Your task to perform on an android device: Clear the cart on ebay.com. Search for bose soundlink mini on ebay.com, select the first entry, add it to the cart, then select checkout. Image 0: 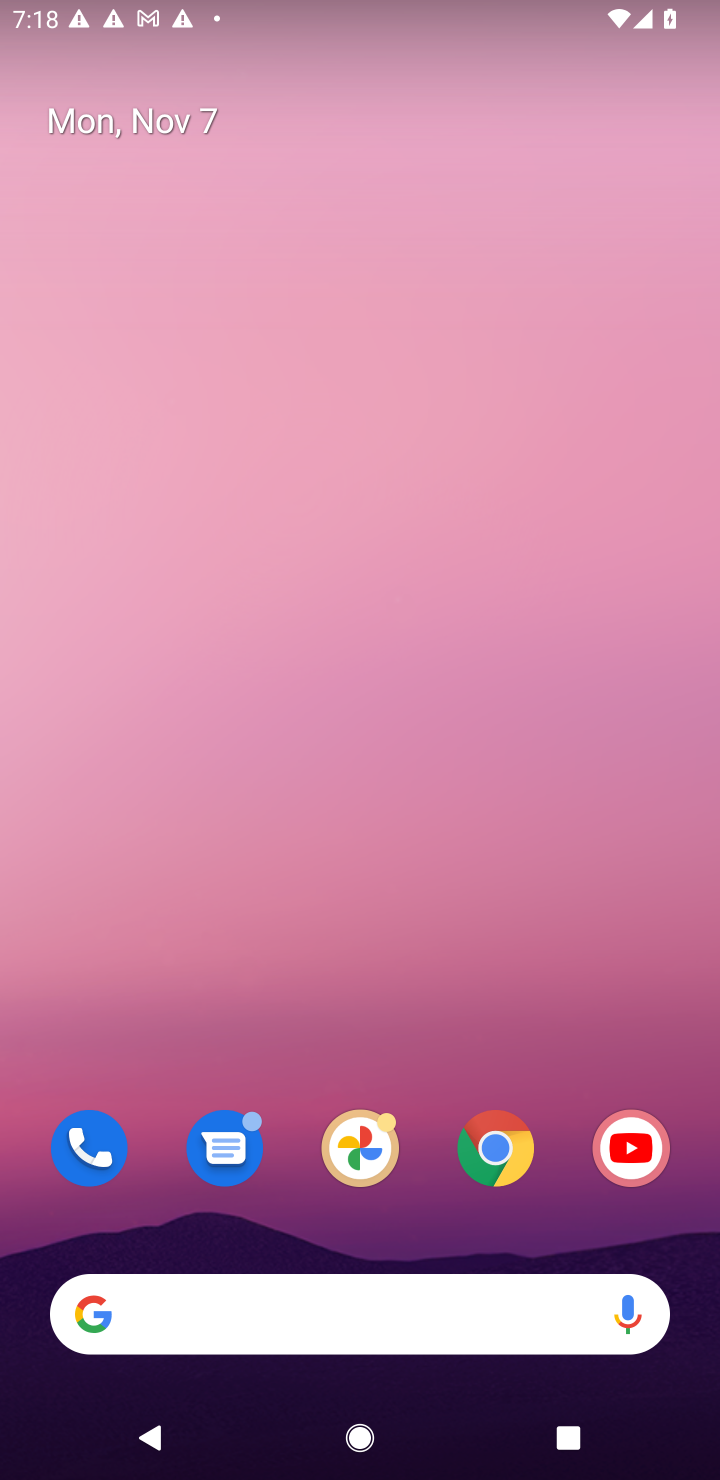
Step 0: click (497, 1142)
Your task to perform on an android device: Clear the cart on ebay.com. Search for bose soundlink mini on ebay.com, select the first entry, add it to the cart, then select checkout. Image 1: 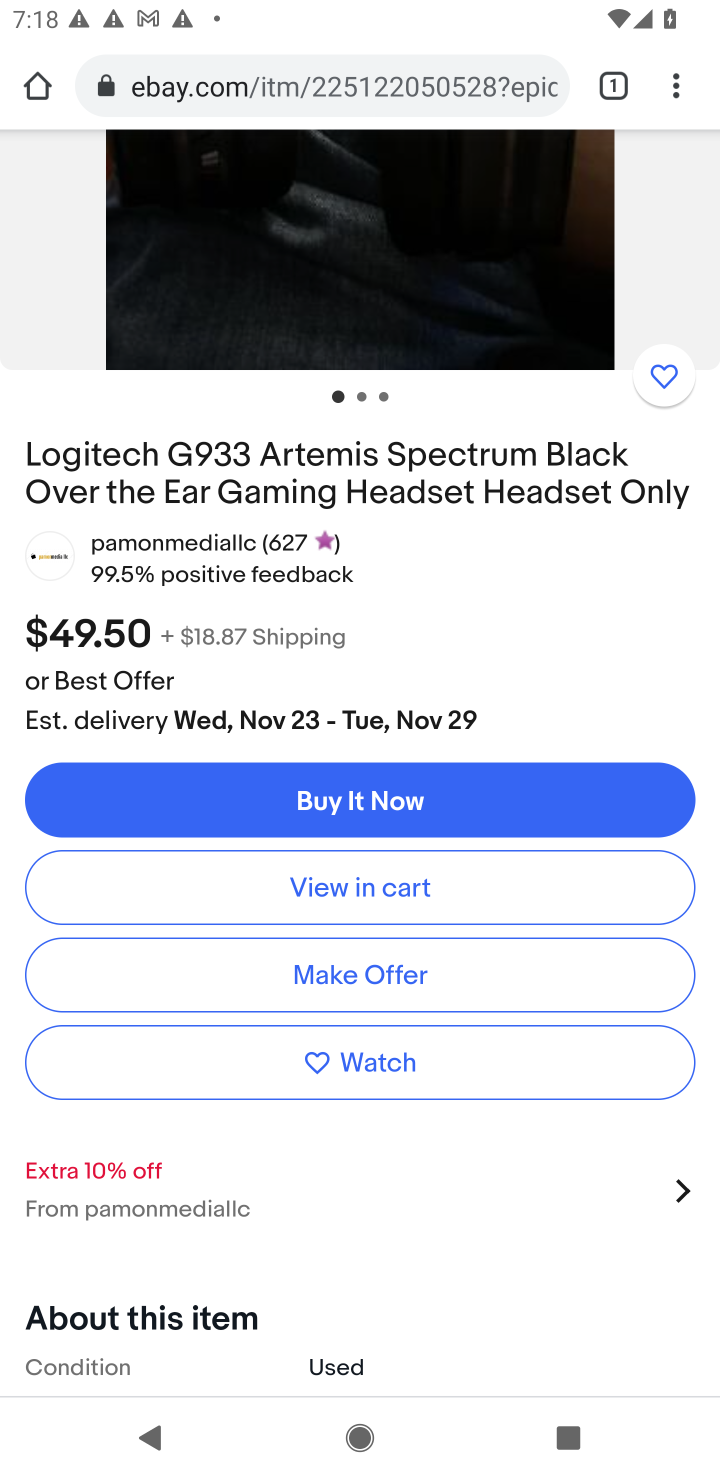
Step 1: click (384, 75)
Your task to perform on an android device: Clear the cart on ebay.com. Search for bose soundlink mini on ebay.com, select the first entry, add it to the cart, then select checkout. Image 2: 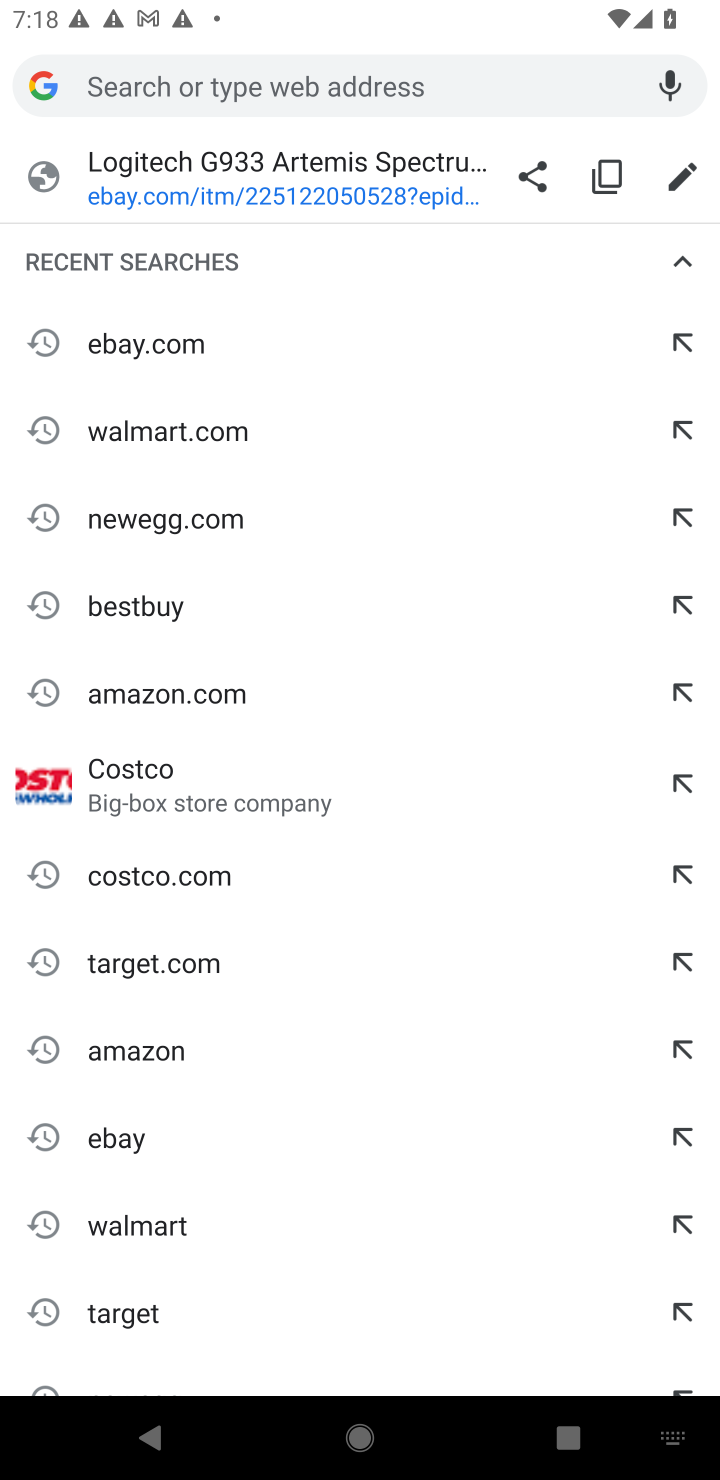
Step 2: click (171, 349)
Your task to perform on an android device: Clear the cart on ebay.com. Search for bose soundlink mini on ebay.com, select the first entry, add it to the cart, then select checkout. Image 3: 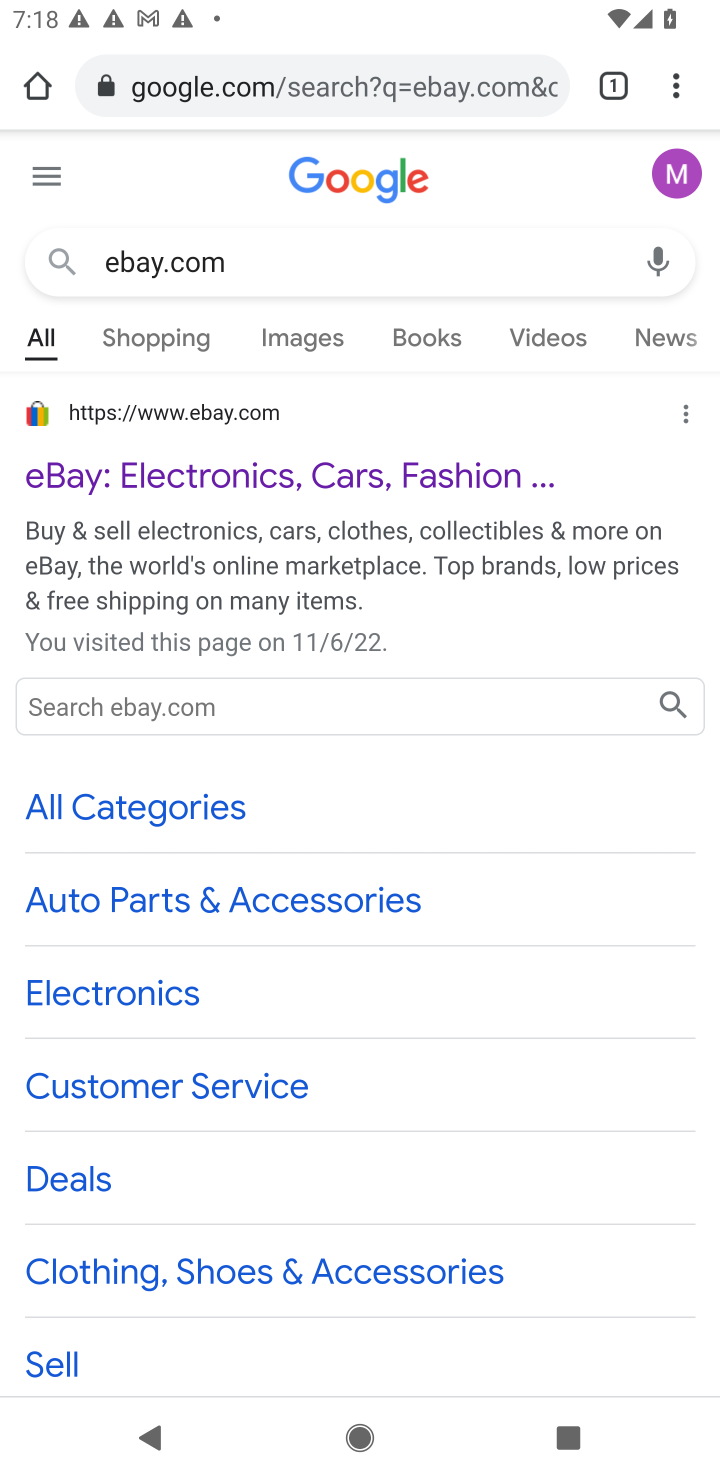
Step 3: click (174, 404)
Your task to perform on an android device: Clear the cart on ebay.com. Search for bose soundlink mini on ebay.com, select the first entry, add it to the cart, then select checkout. Image 4: 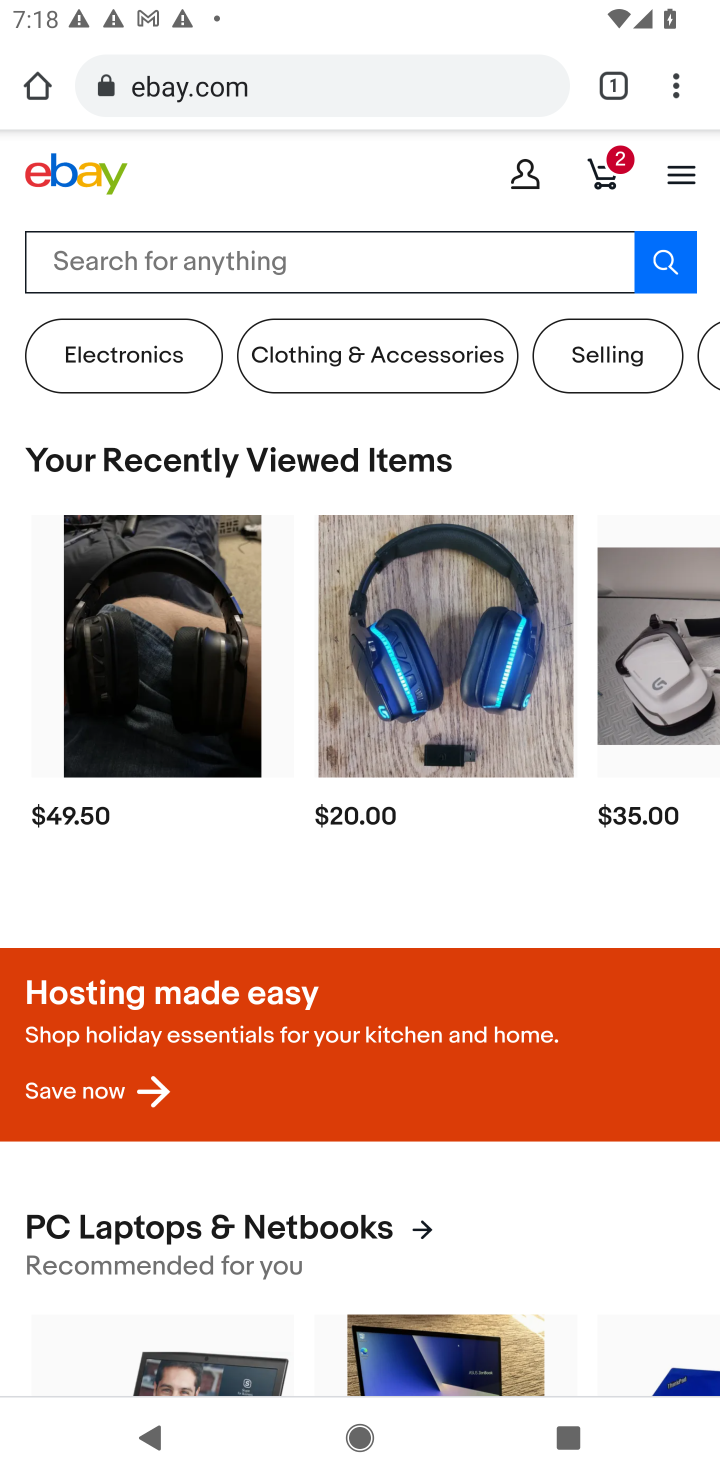
Step 4: click (618, 179)
Your task to perform on an android device: Clear the cart on ebay.com. Search for bose soundlink mini on ebay.com, select the first entry, add it to the cart, then select checkout. Image 5: 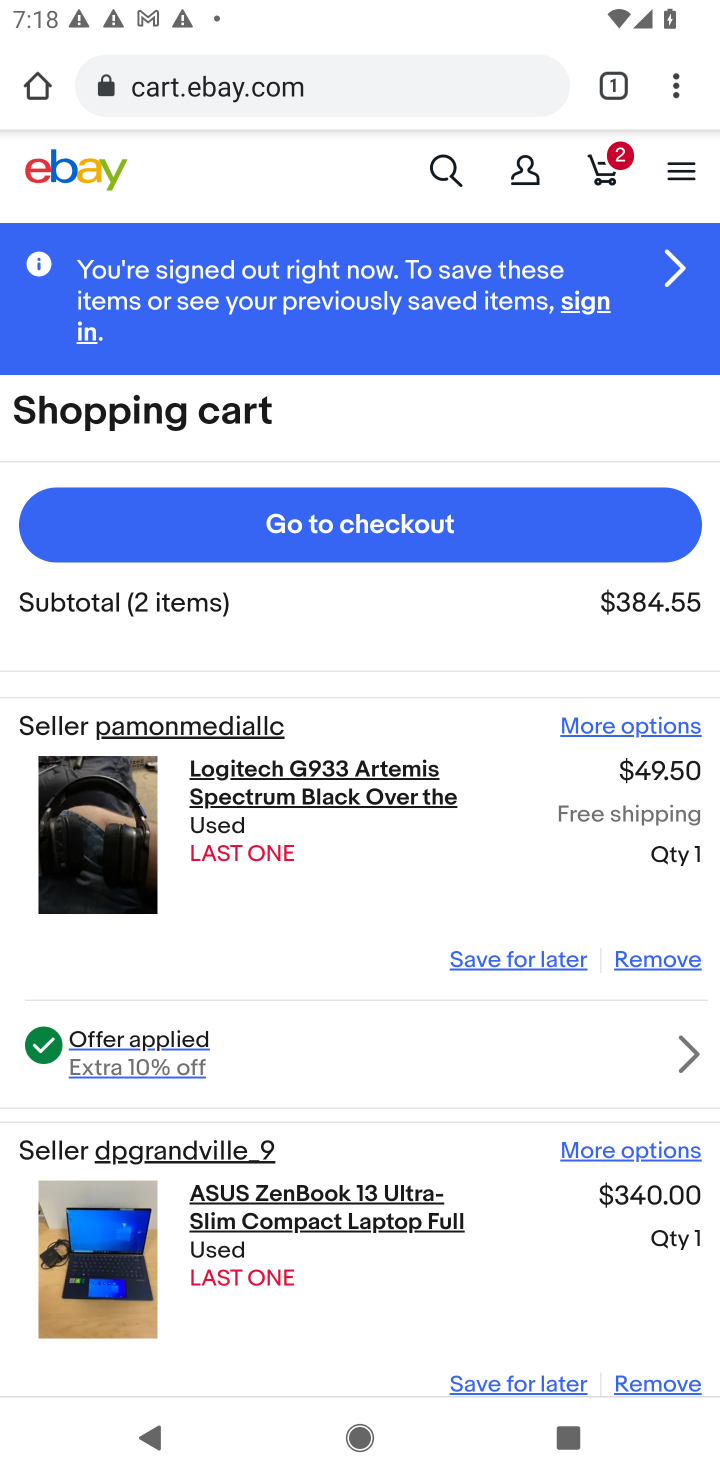
Step 5: click (659, 959)
Your task to perform on an android device: Clear the cart on ebay.com. Search for bose soundlink mini on ebay.com, select the first entry, add it to the cart, then select checkout. Image 6: 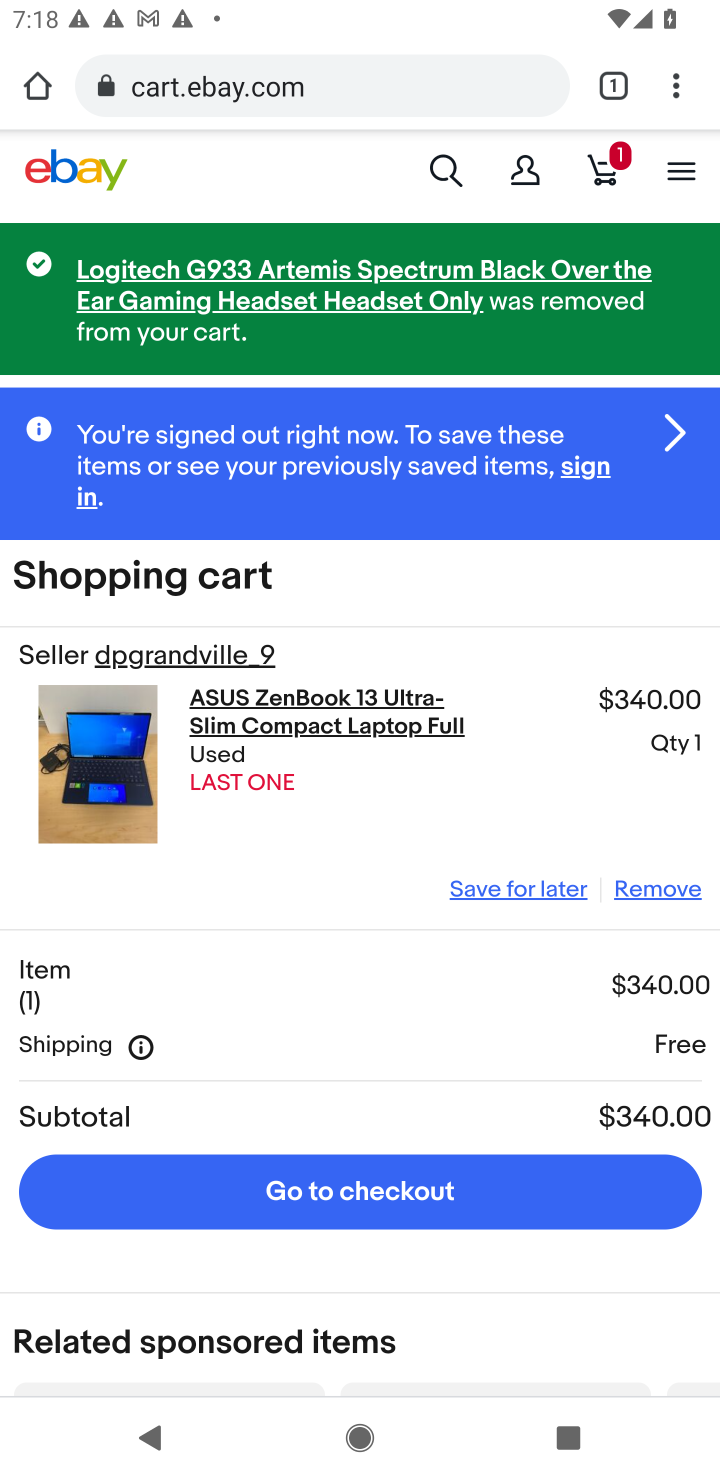
Step 6: click (668, 879)
Your task to perform on an android device: Clear the cart on ebay.com. Search for bose soundlink mini on ebay.com, select the first entry, add it to the cart, then select checkout. Image 7: 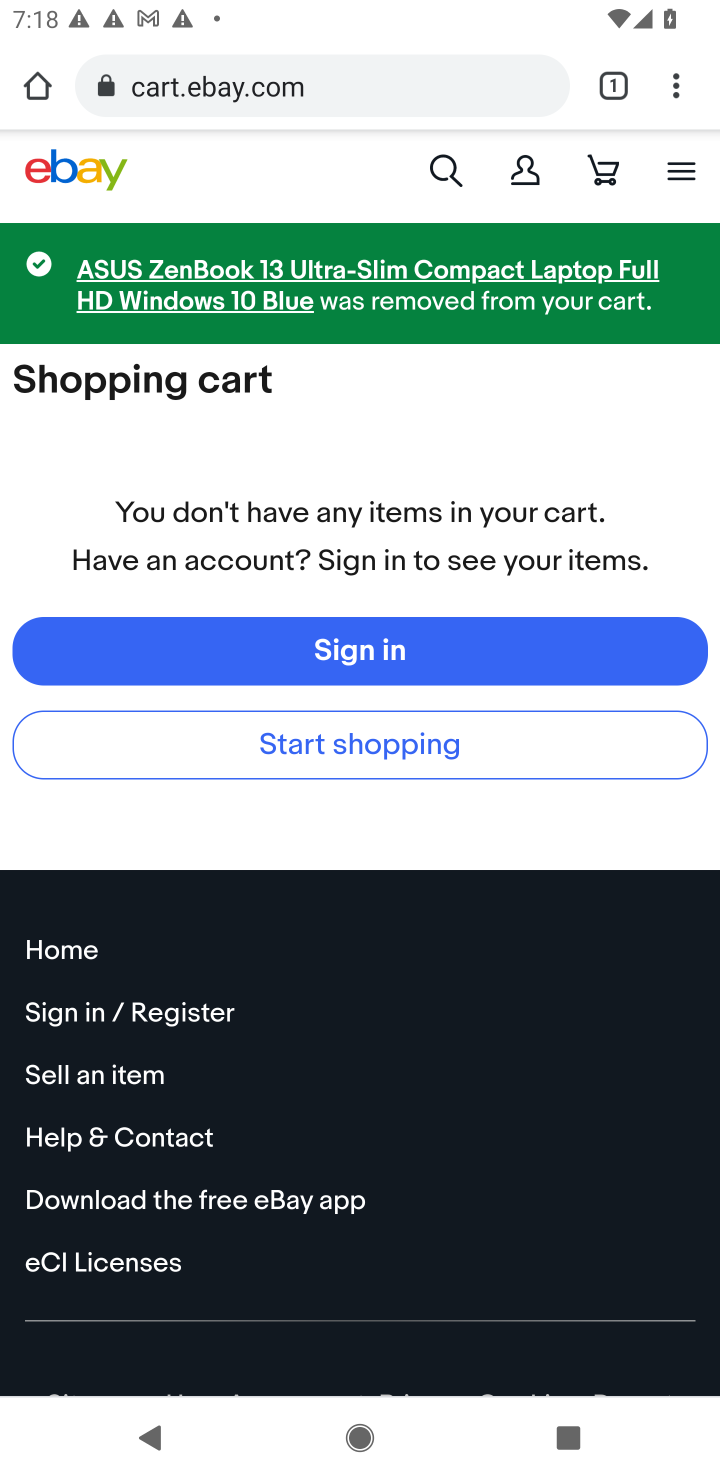
Step 7: click (434, 163)
Your task to perform on an android device: Clear the cart on ebay.com. Search for bose soundlink mini on ebay.com, select the first entry, add it to the cart, then select checkout. Image 8: 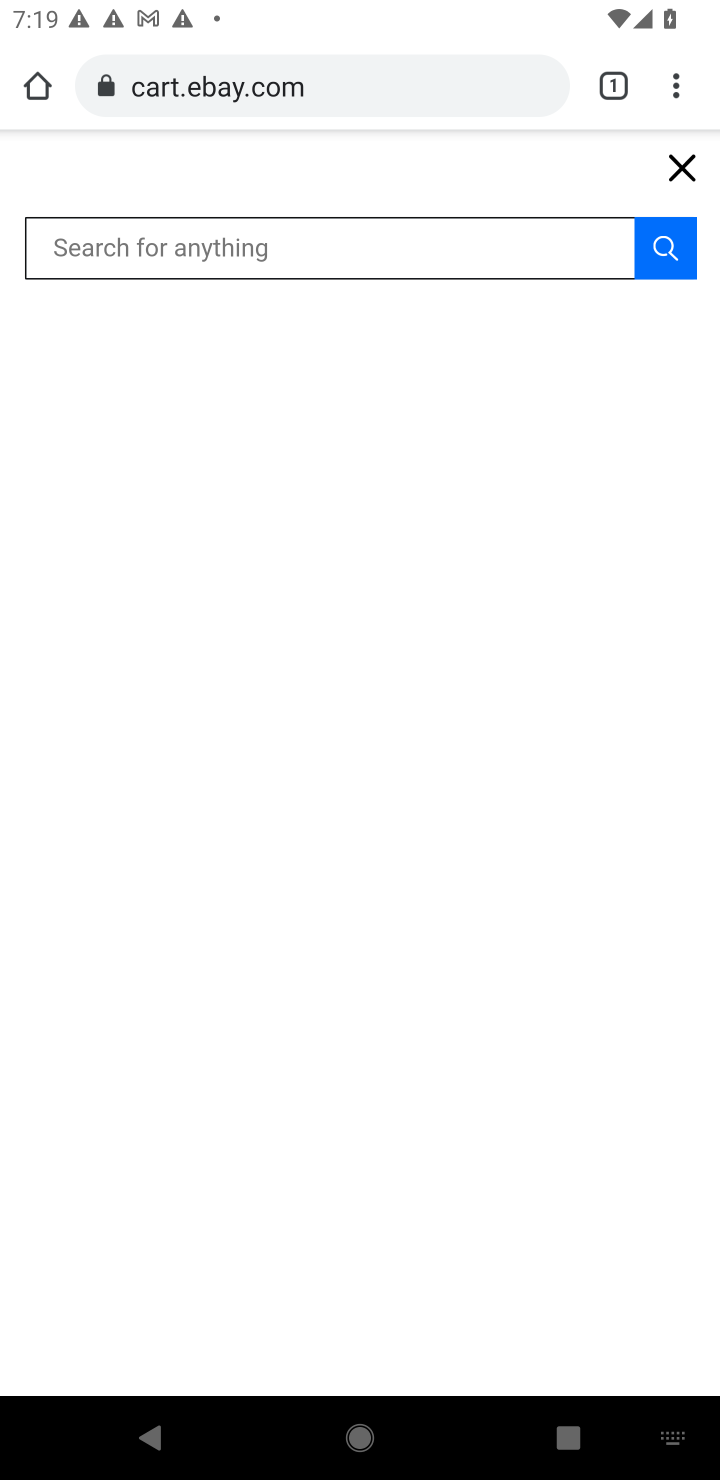
Step 8: click (497, 243)
Your task to perform on an android device: Clear the cart on ebay.com. Search for bose soundlink mini on ebay.com, select the first entry, add it to the cart, then select checkout. Image 9: 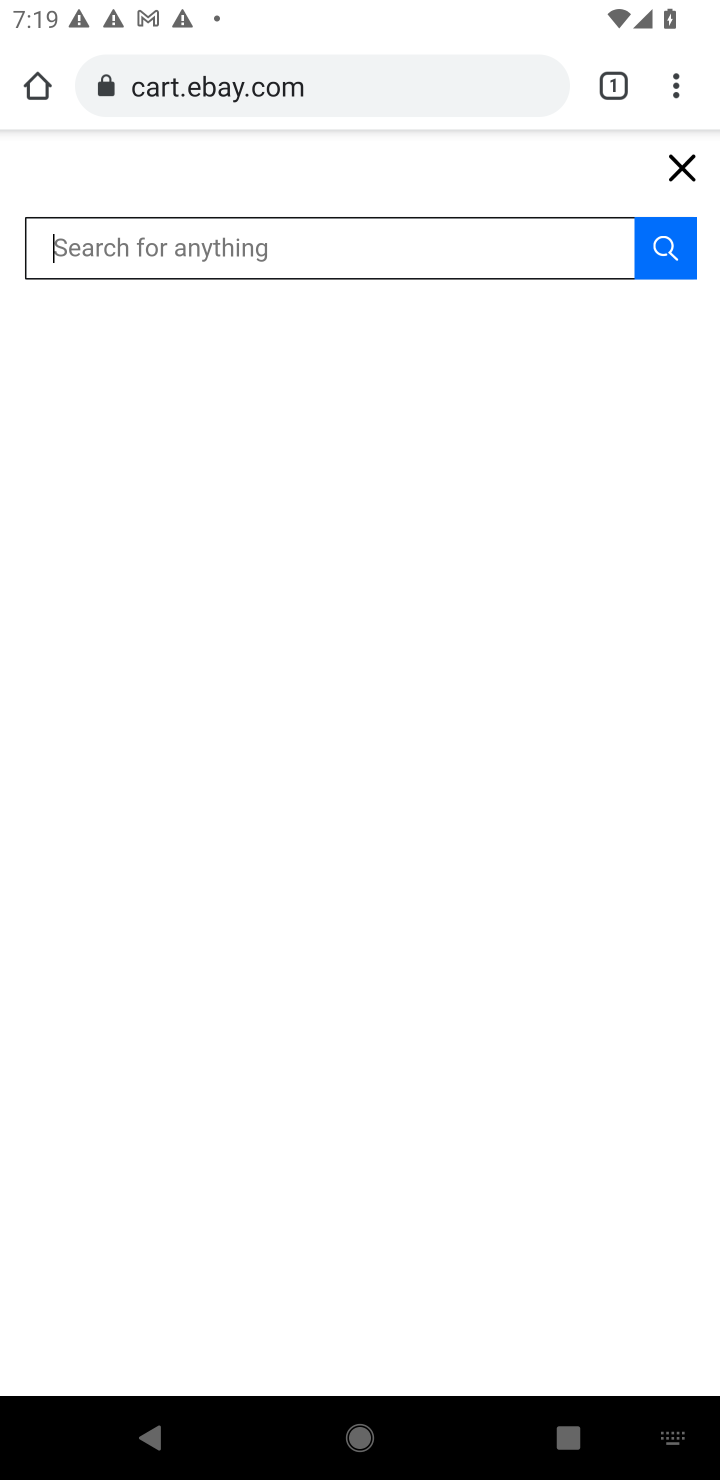
Step 9: type "bose soundlink mini "
Your task to perform on an android device: Clear the cart on ebay.com. Search for bose soundlink mini on ebay.com, select the first entry, add it to the cart, then select checkout. Image 10: 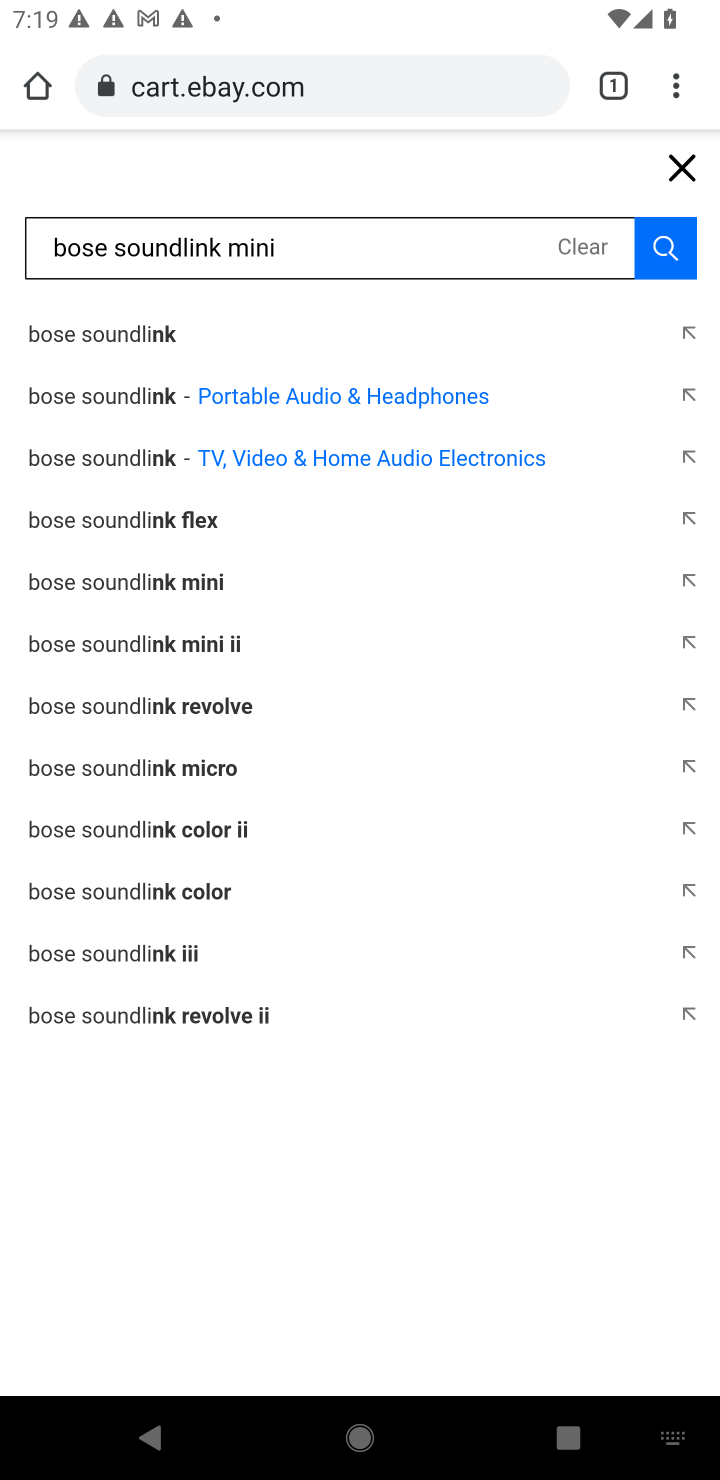
Step 10: click (195, 578)
Your task to perform on an android device: Clear the cart on ebay.com. Search for bose soundlink mini on ebay.com, select the first entry, add it to the cart, then select checkout. Image 11: 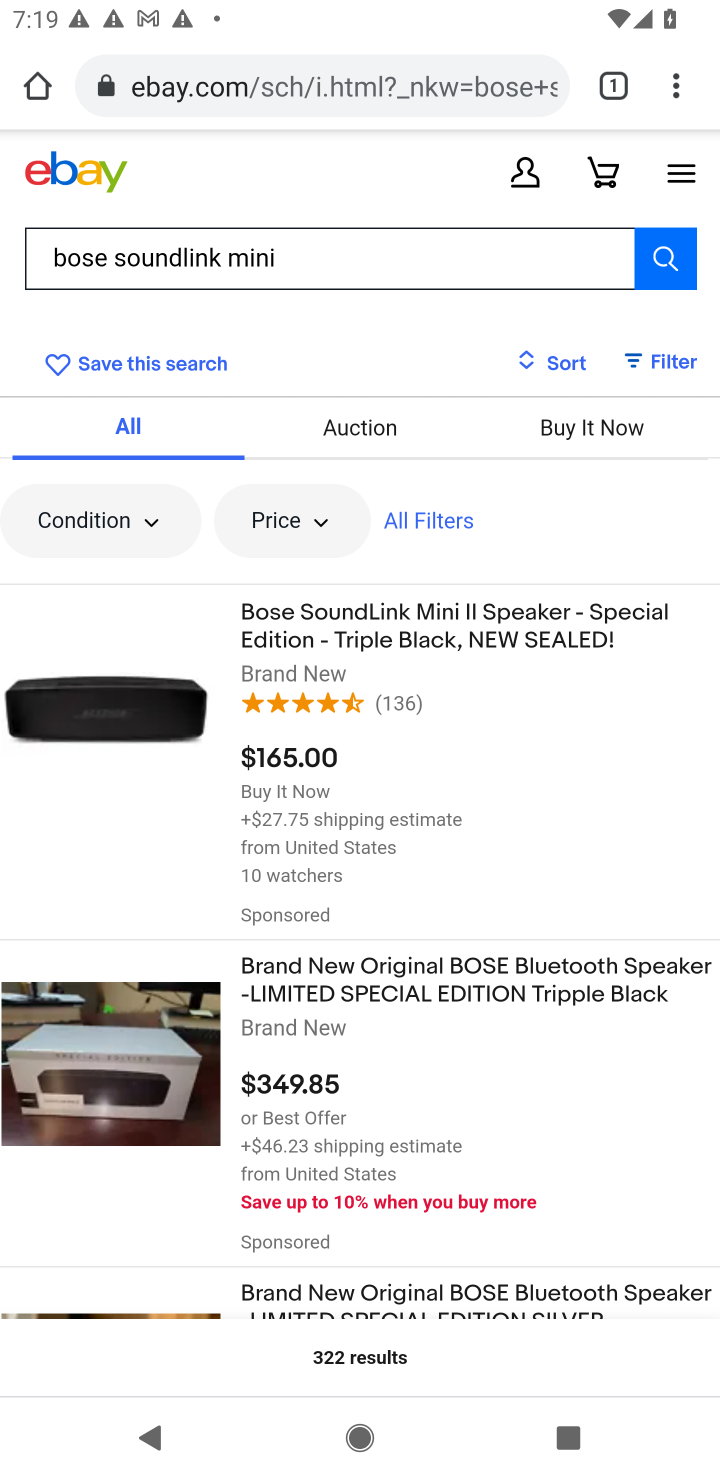
Step 11: click (138, 711)
Your task to perform on an android device: Clear the cart on ebay.com. Search for bose soundlink mini on ebay.com, select the first entry, add it to the cart, then select checkout. Image 12: 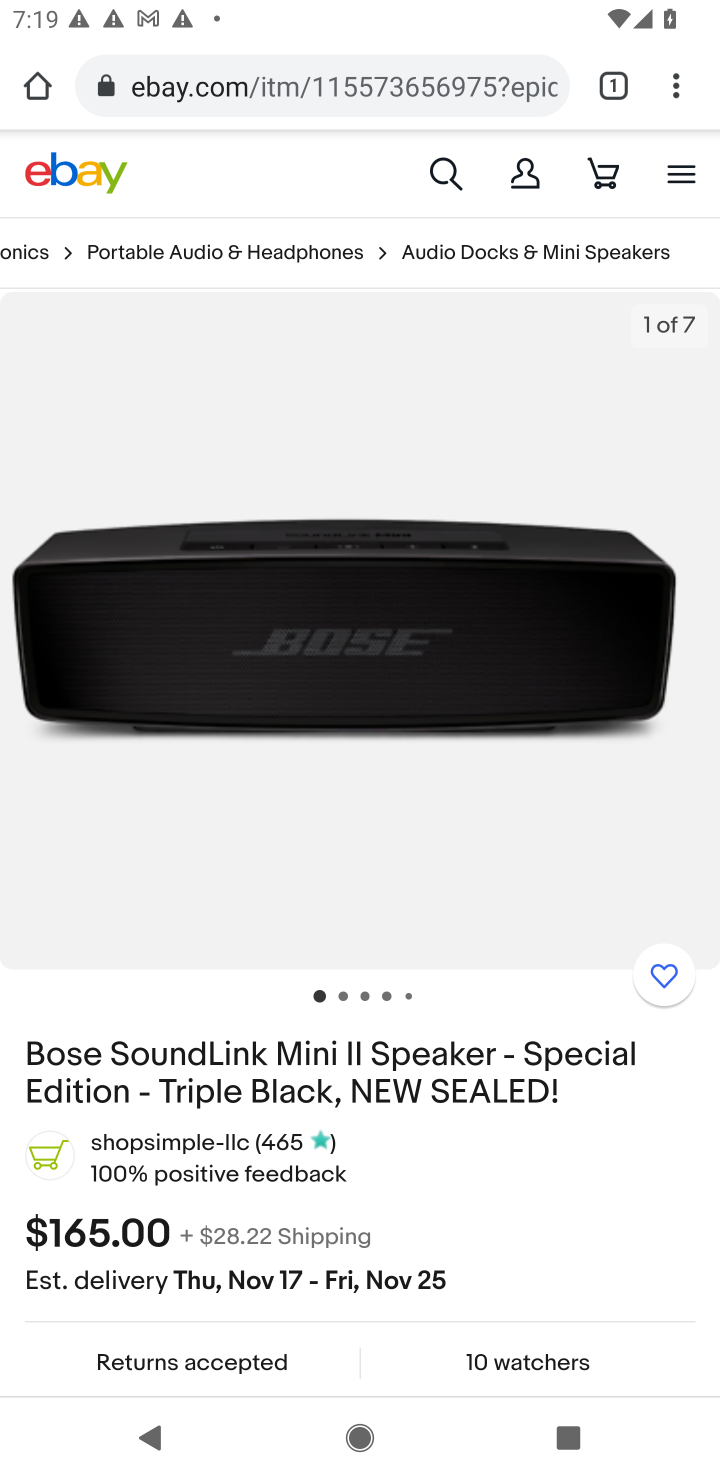
Step 12: drag from (526, 1152) to (565, 565)
Your task to perform on an android device: Clear the cart on ebay.com. Search for bose soundlink mini on ebay.com, select the first entry, add it to the cart, then select checkout. Image 13: 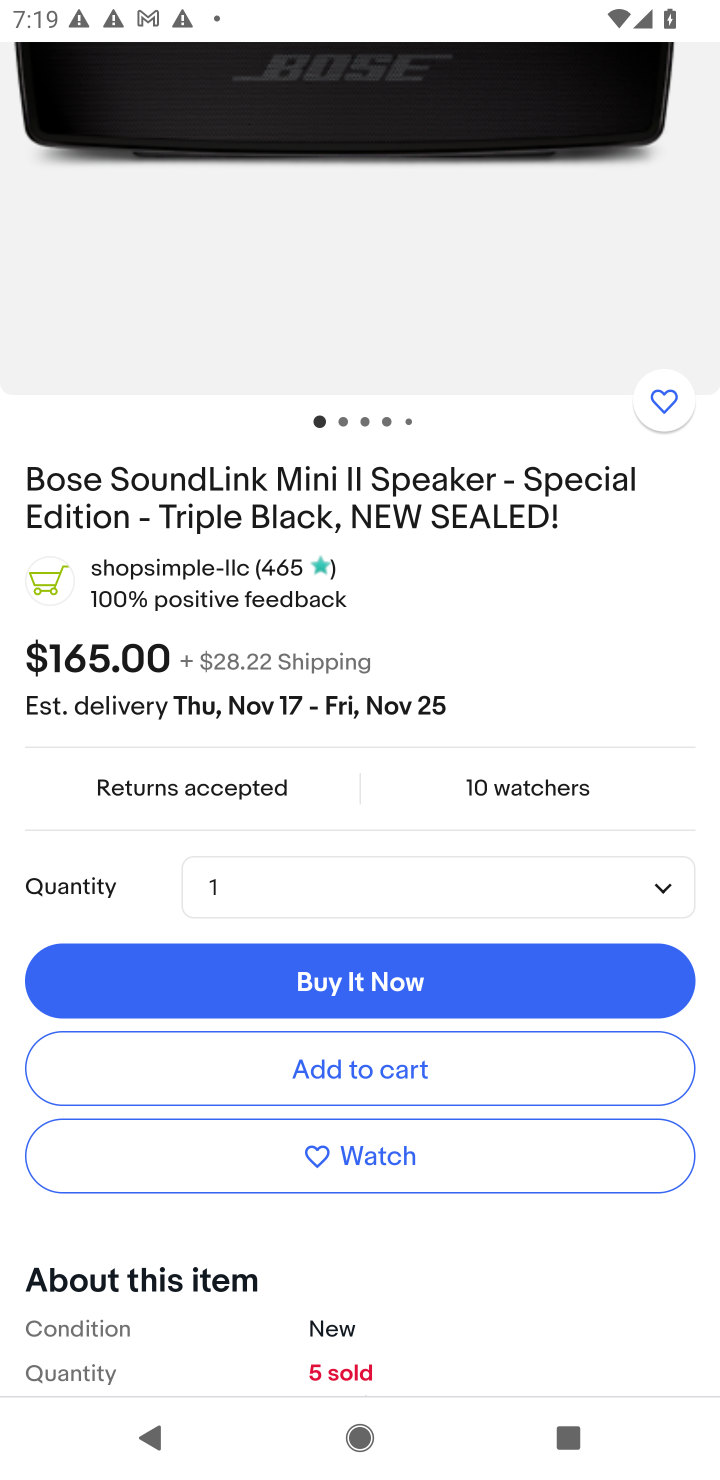
Step 13: click (342, 1056)
Your task to perform on an android device: Clear the cart on ebay.com. Search for bose soundlink mini on ebay.com, select the first entry, add it to the cart, then select checkout. Image 14: 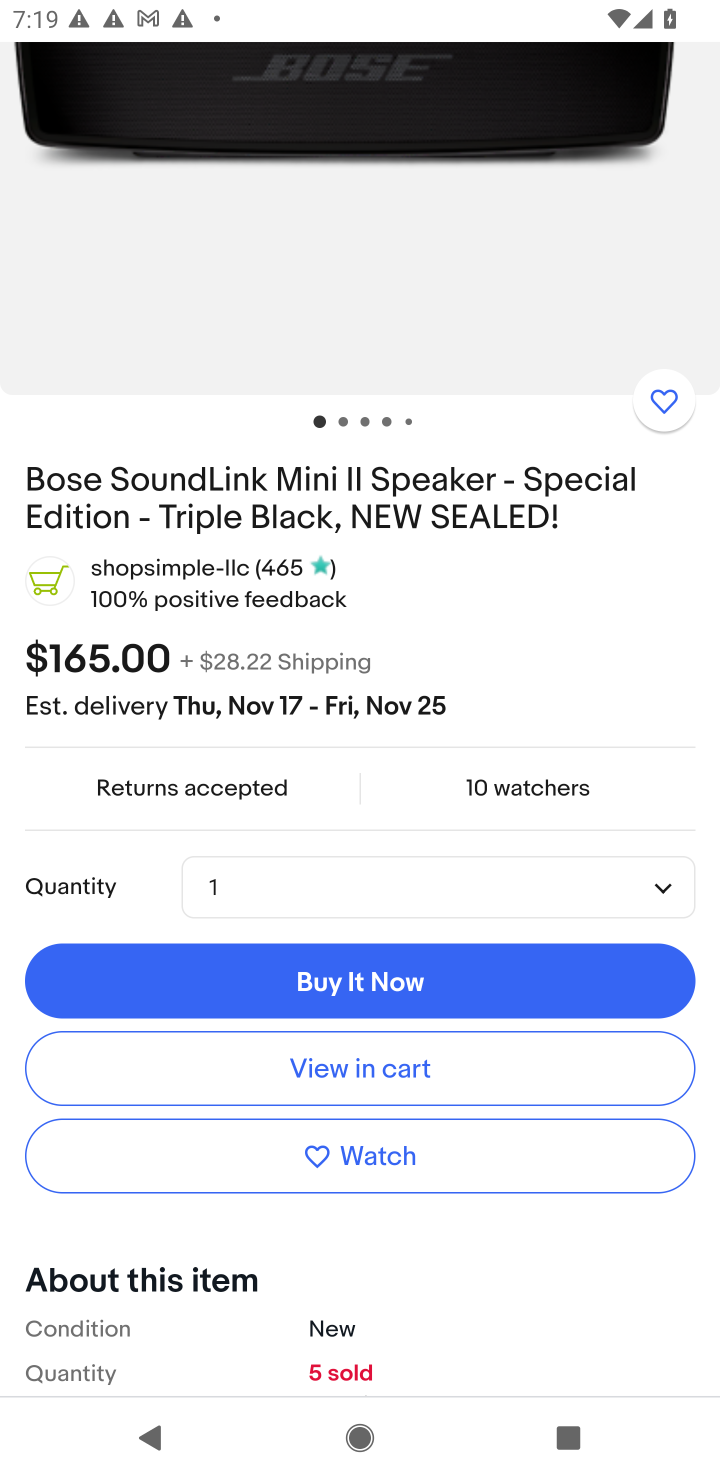
Step 14: click (343, 1067)
Your task to perform on an android device: Clear the cart on ebay.com. Search for bose soundlink mini on ebay.com, select the first entry, add it to the cart, then select checkout. Image 15: 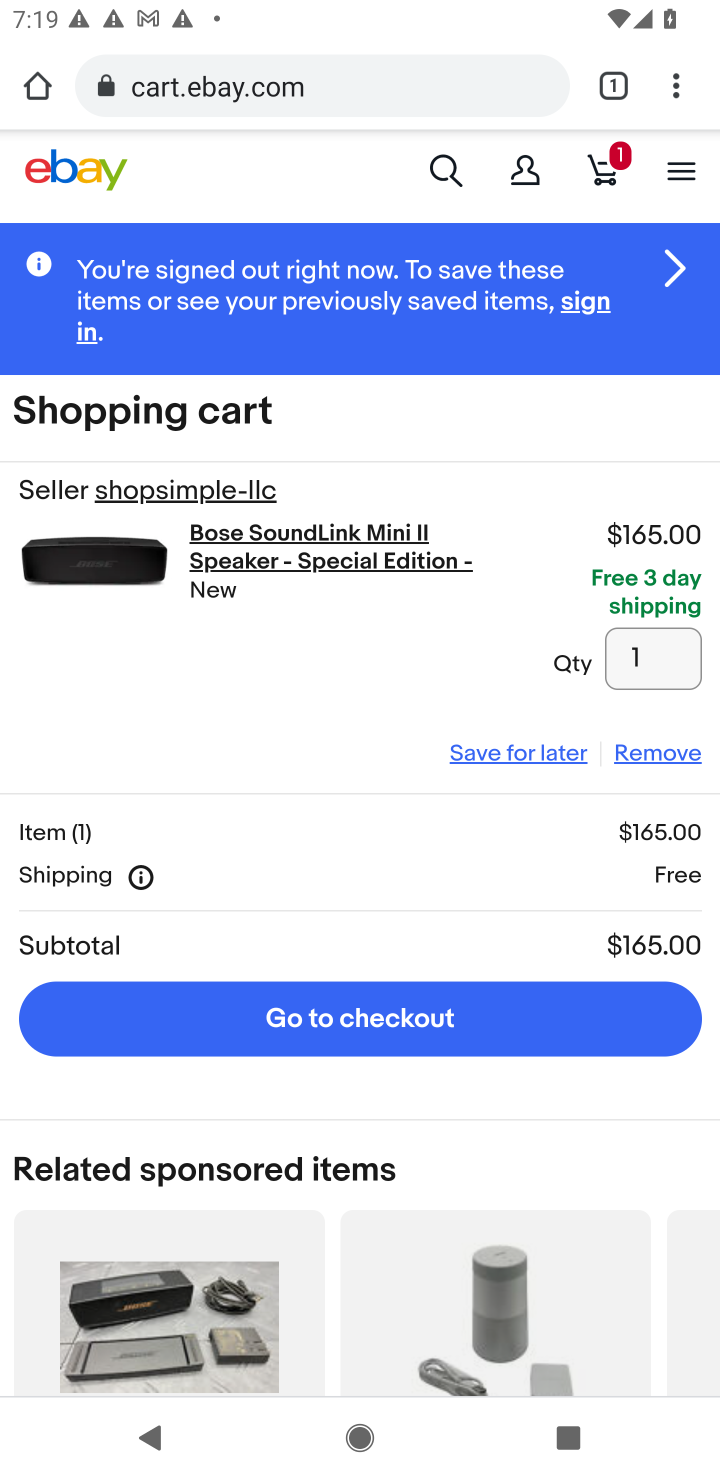
Step 15: click (303, 1018)
Your task to perform on an android device: Clear the cart on ebay.com. Search for bose soundlink mini on ebay.com, select the first entry, add it to the cart, then select checkout. Image 16: 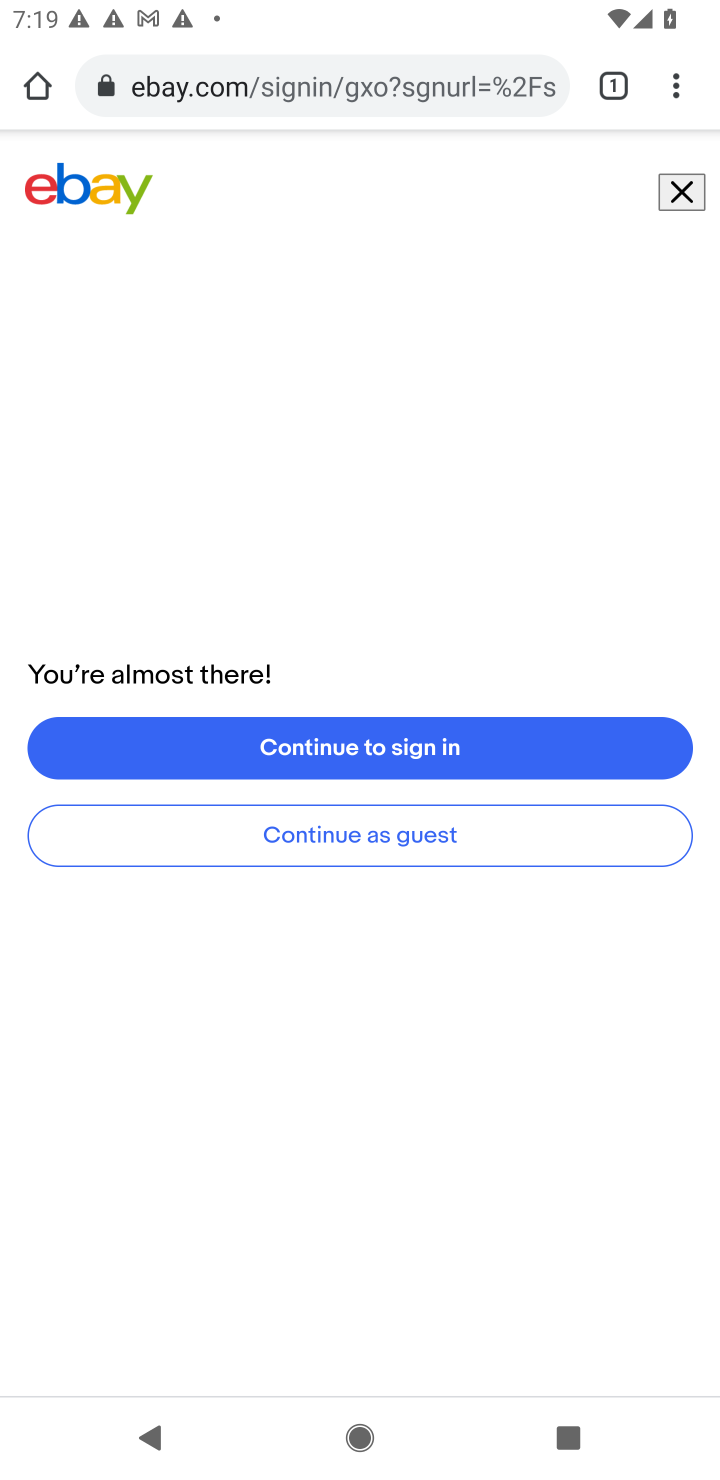
Step 16: task complete